Your task to perform on an android device: Open the web browser Image 0: 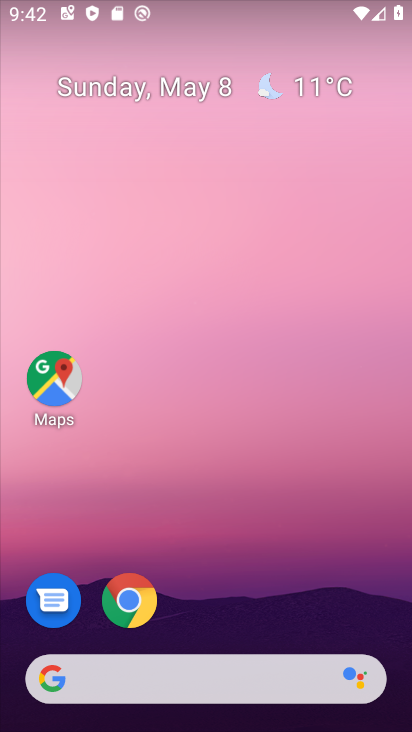
Step 0: drag from (272, 580) to (275, 52)
Your task to perform on an android device: Open the web browser Image 1: 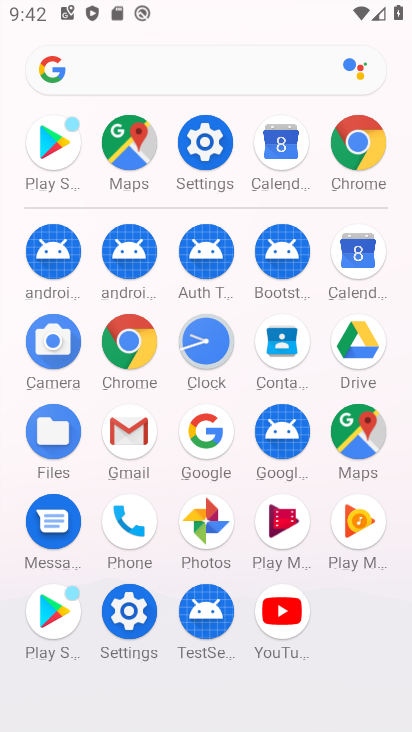
Step 1: click (128, 337)
Your task to perform on an android device: Open the web browser Image 2: 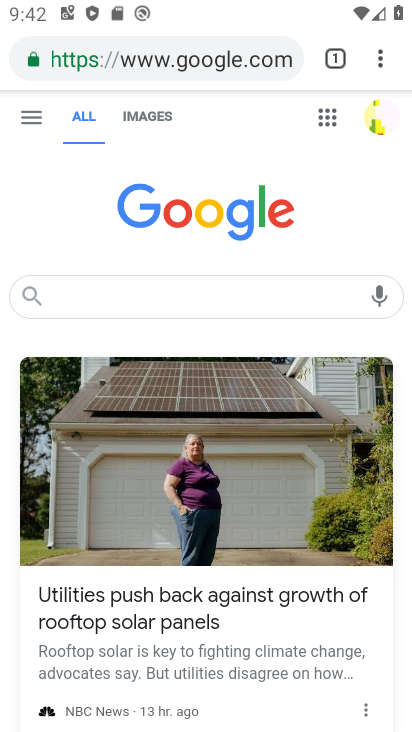
Step 2: task complete